Your task to perform on an android device: Go to network settings Image 0: 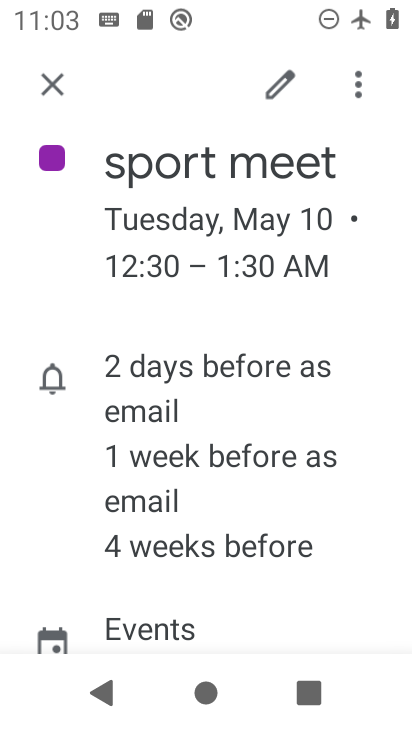
Step 0: press home button
Your task to perform on an android device: Go to network settings Image 1: 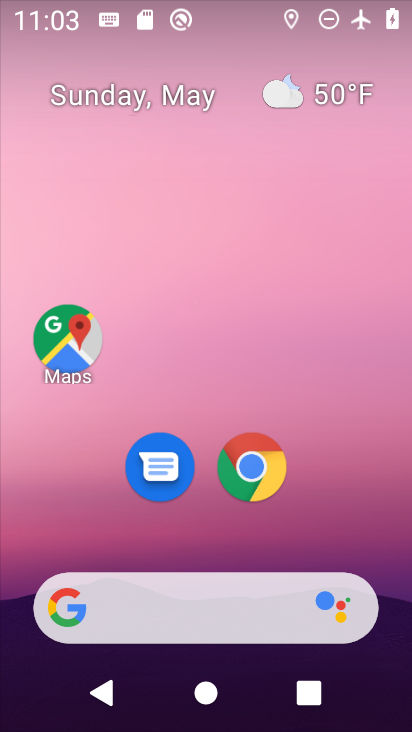
Step 1: drag from (239, 463) to (239, 67)
Your task to perform on an android device: Go to network settings Image 2: 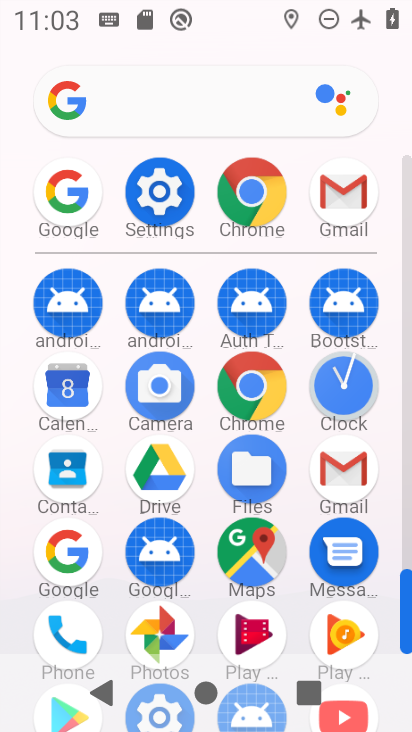
Step 2: click (161, 180)
Your task to perform on an android device: Go to network settings Image 3: 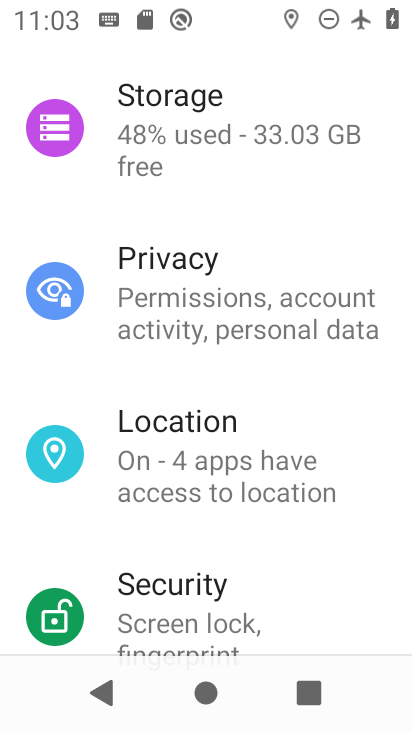
Step 3: drag from (244, 165) to (236, 603)
Your task to perform on an android device: Go to network settings Image 4: 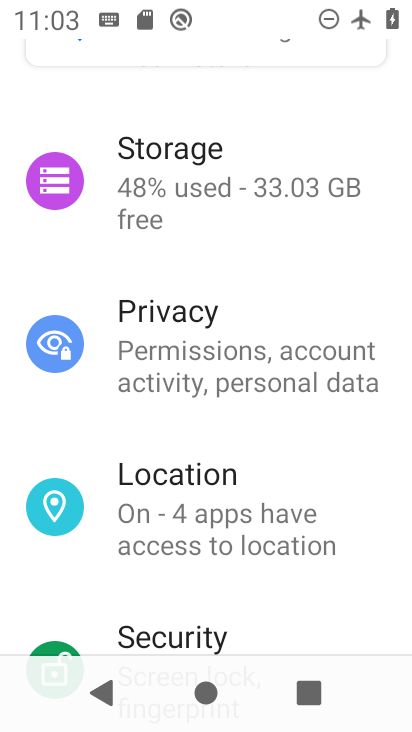
Step 4: drag from (224, 155) to (230, 578)
Your task to perform on an android device: Go to network settings Image 5: 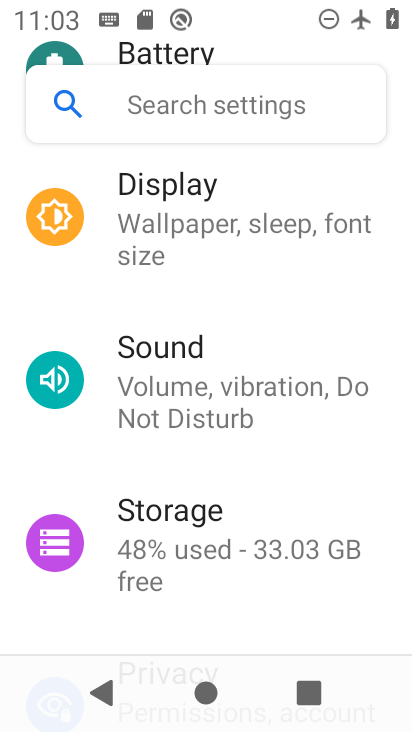
Step 5: drag from (239, 232) to (262, 532)
Your task to perform on an android device: Go to network settings Image 6: 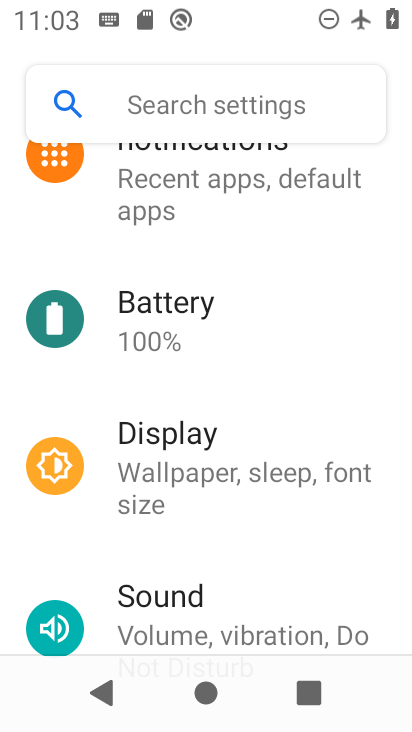
Step 6: drag from (270, 208) to (263, 583)
Your task to perform on an android device: Go to network settings Image 7: 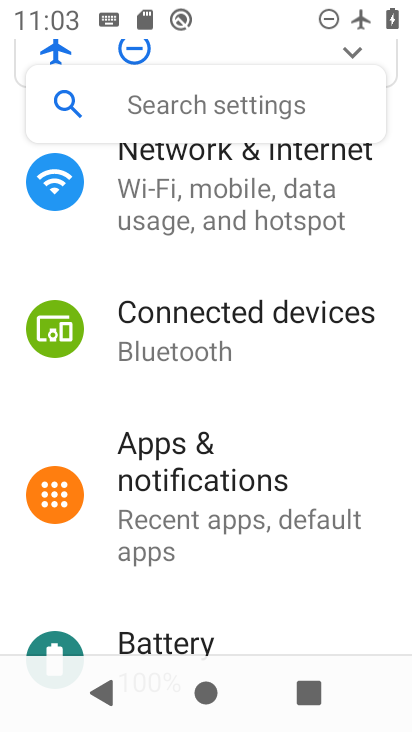
Step 7: drag from (232, 261) to (230, 437)
Your task to perform on an android device: Go to network settings Image 8: 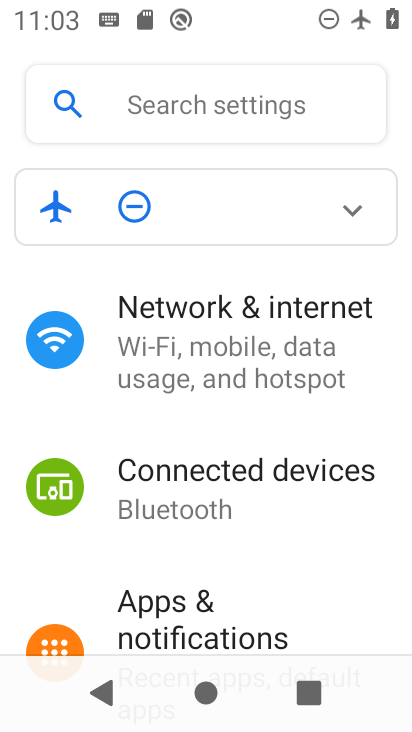
Step 8: click (191, 324)
Your task to perform on an android device: Go to network settings Image 9: 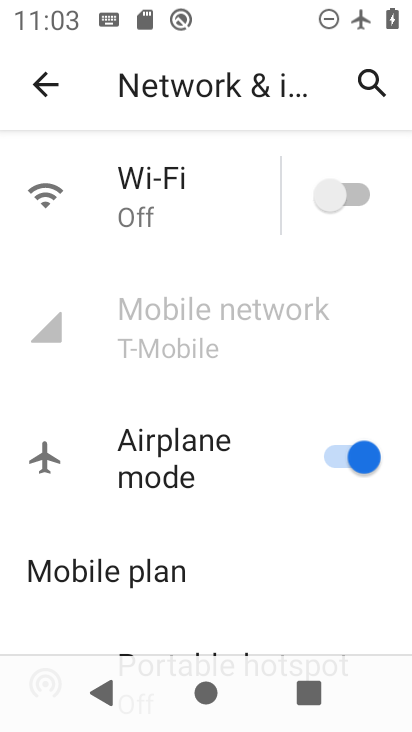
Step 9: task complete